Your task to perform on an android device: read, delete, or share a saved page in the chrome app Image 0: 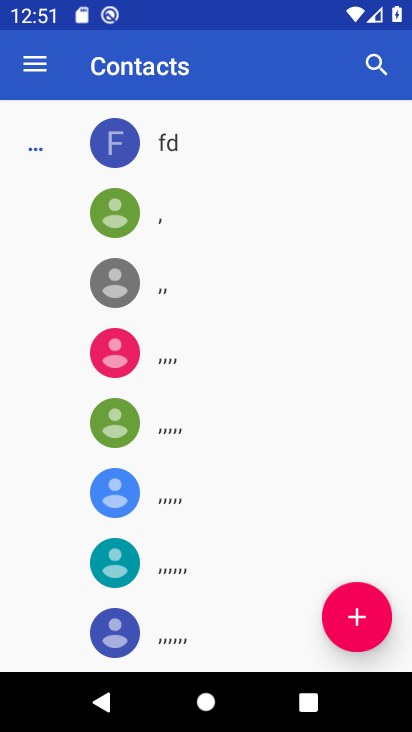
Step 0: press home button
Your task to perform on an android device: read, delete, or share a saved page in the chrome app Image 1: 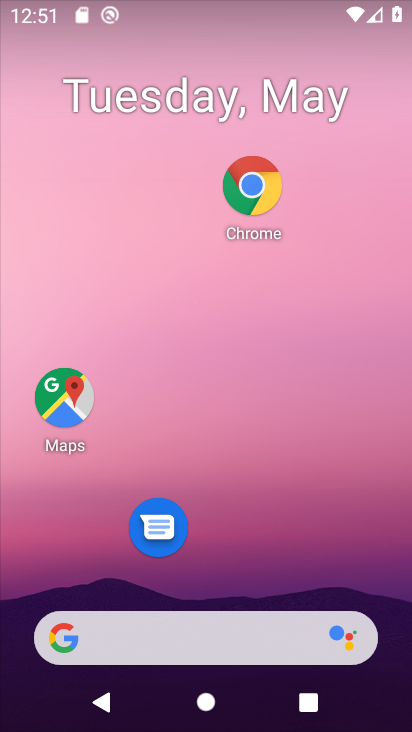
Step 1: drag from (241, 538) to (117, 33)
Your task to perform on an android device: read, delete, or share a saved page in the chrome app Image 2: 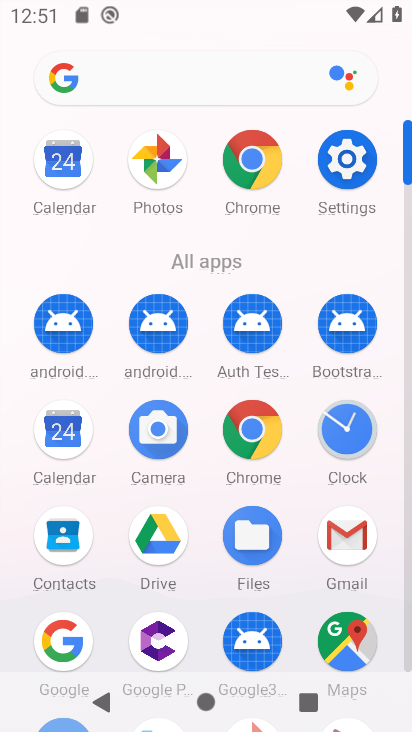
Step 2: click (250, 153)
Your task to perform on an android device: read, delete, or share a saved page in the chrome app Image 3: 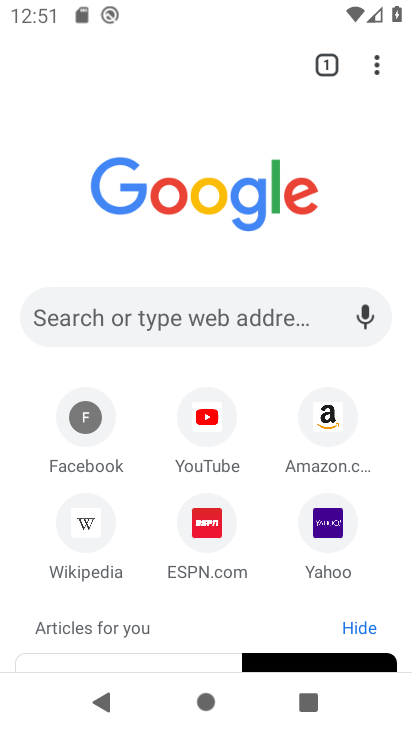
Step 3: click (370, 66)
Your task to perform on an android device: read, delete, or share a saved page in the chrome app Image 4: 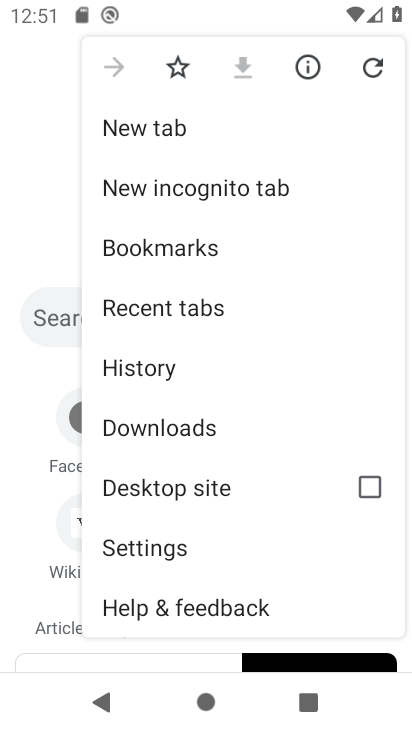
Step 4: click (168, 421)
Your task to perform on an android device: read, delete, or share a saved page in the chrome app Image 5: 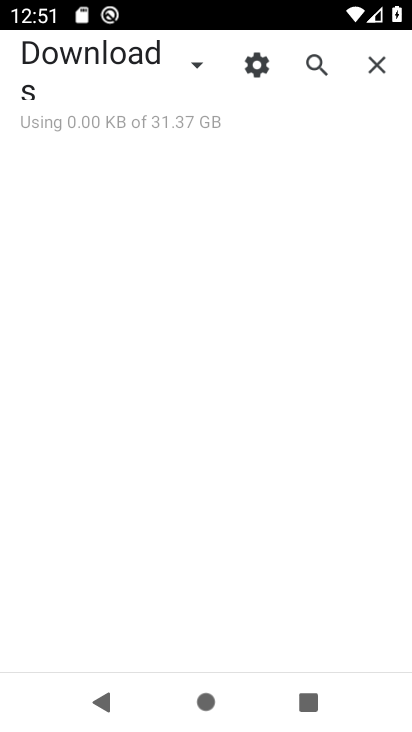
Step 5: task complete